Your task to perform on an android device: empty trash in the gmail app Image 0: 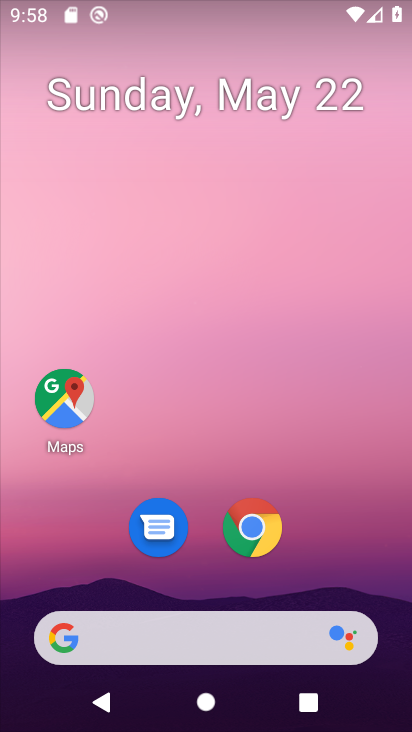
Step 0: drag from (224, 605) to (293, 125)
Your task to perform on an android device: empty trash in the gmail app Image 1: 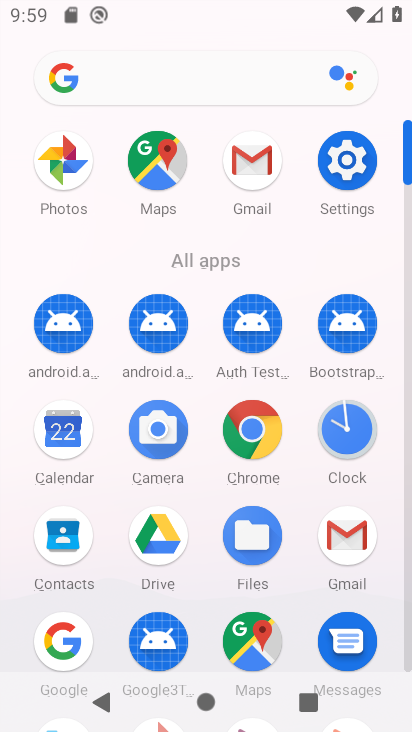
Step 1: click (359, 557)
Your task to perform on an android device: empty trash in the gmail app Image 2: 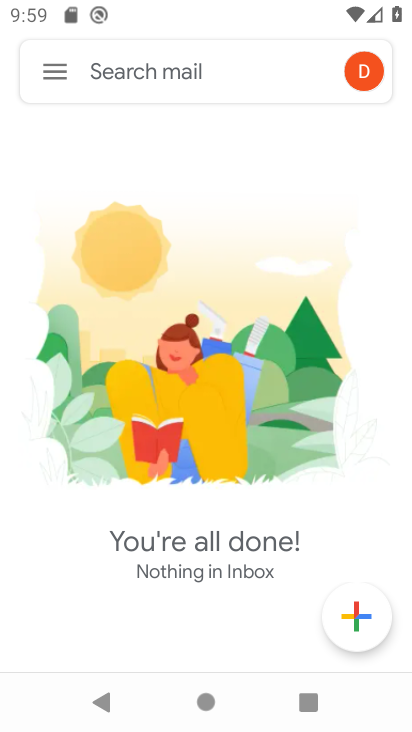
Step 2: click (60, 79)
Your task to perform on an android device: empty trash in the gmail app Image 3: 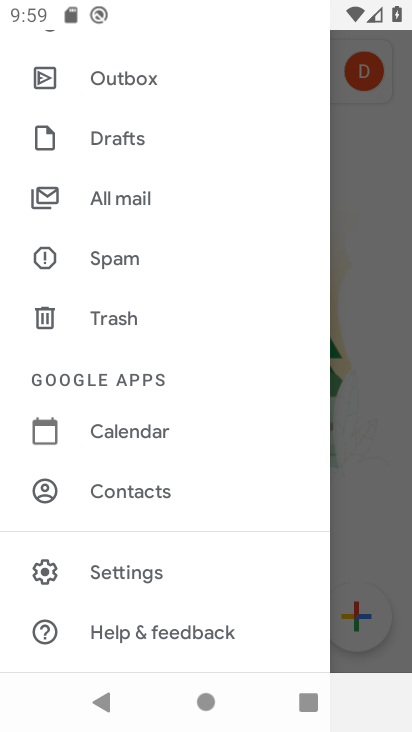
Step 3: click (144, 322)
Your task to perform on an android device: empty trash in the gmail app Image 4: 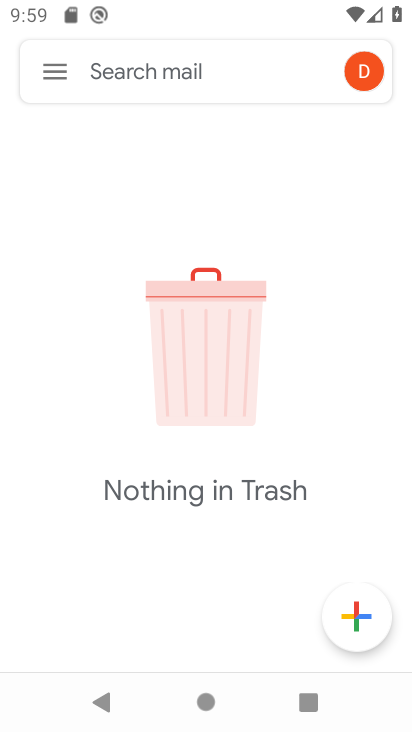
Step 4: task complete